Your task to perform on an android device: Do I have any events this weekend? Image 0: 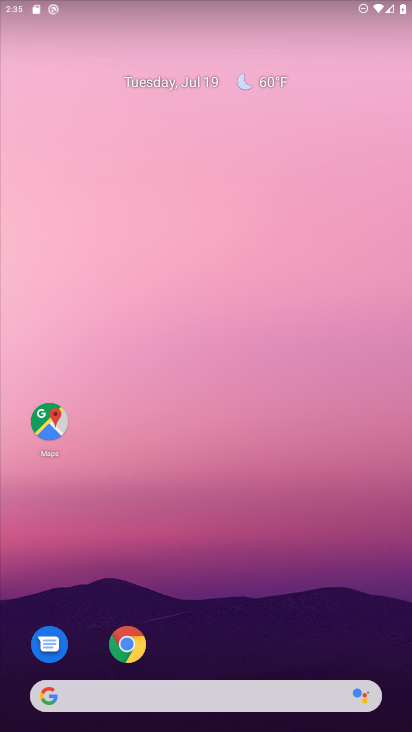
Step 0: drag from (366, 618) to (317, 91)
Your task to perform on an android device: Do I have any events this weekend? Image 1: 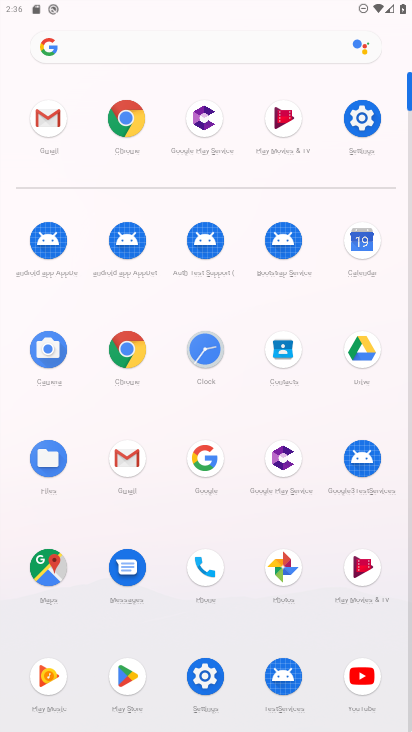
Step 1: click (353, 245)
Your task to perform on an android device: Do I have any events this weekend? Image 2: 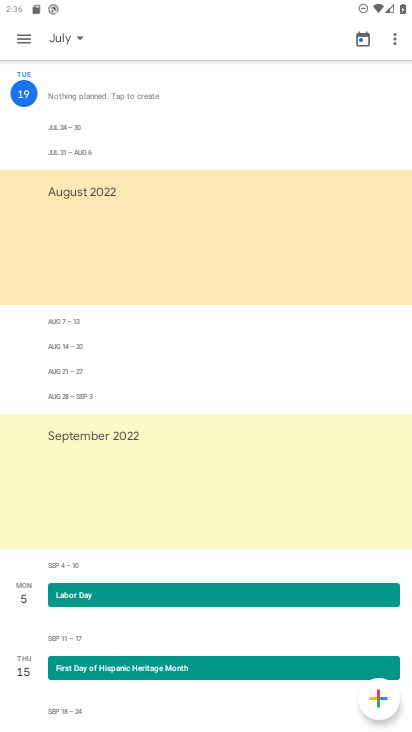
Step 2: click (26, 40)
Your task to perform on an android device: Do I have any events this weekend? Image 3: 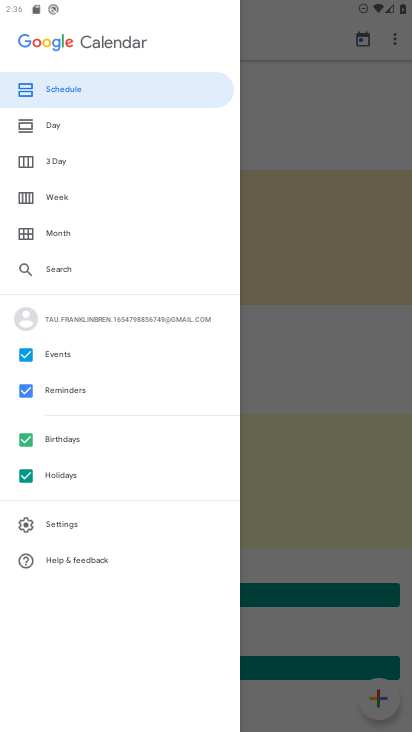
Step 3: click (60, 192)
Your task to perform on an android device: Do I have any events this weekend? Image 4: 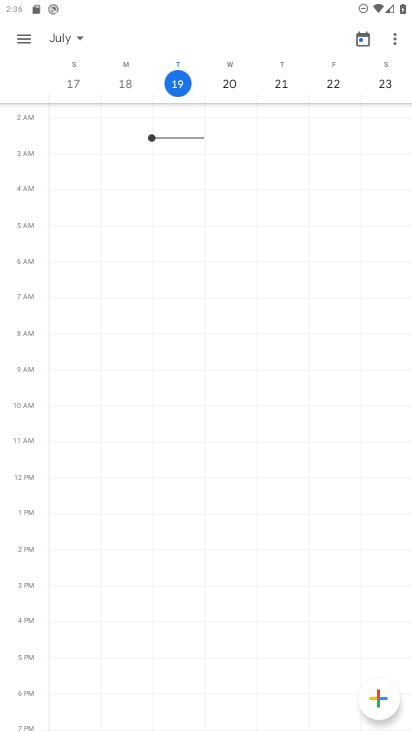
Step 4: task complete